Your task to perform on an android device: Open the map Image 0: 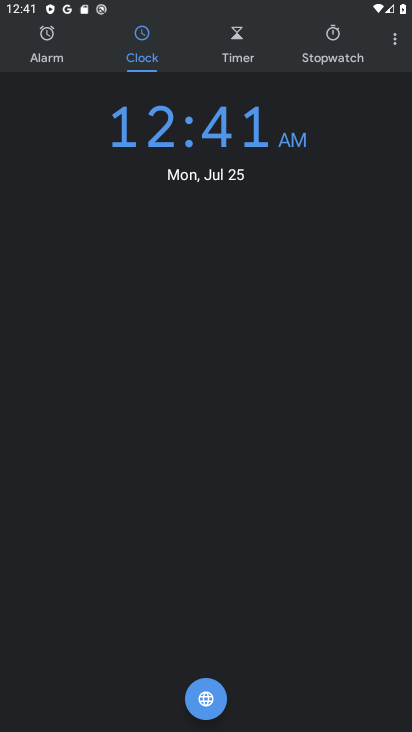
Step 0: press home button
Your task to perform on an android device: Open the map Image 1: 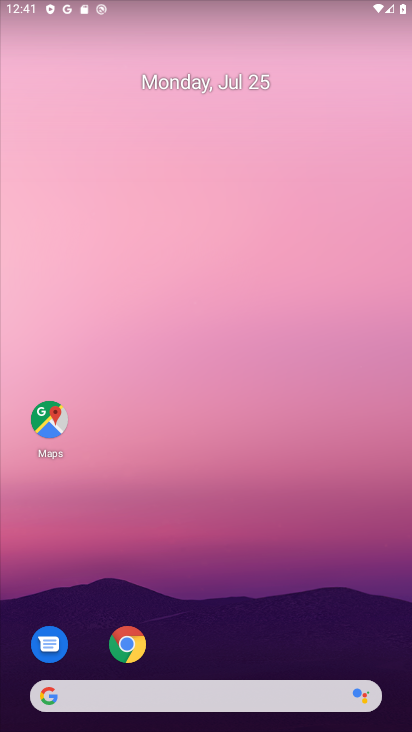
Step 1: click (46, 420)
Your task to perform on an android device: Open the map Image 2: 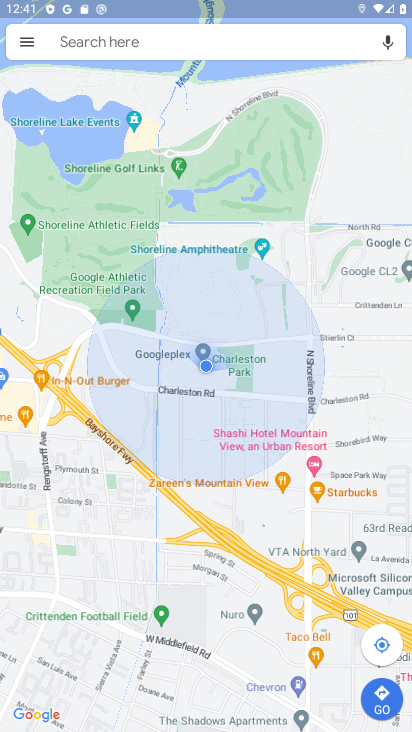
Step 2: task complete